Your task to perform on an android device: turn notification dots on Image 0: 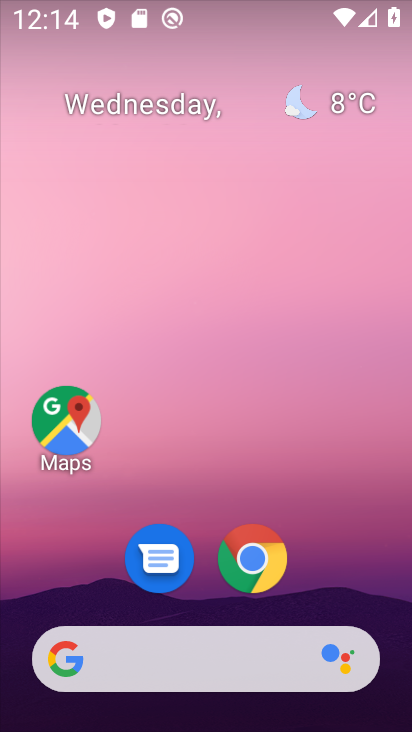
Step 0: drag from (320, 554) to (232, 28)
Your task to perform on an android device: turn notification dots on Image 1: 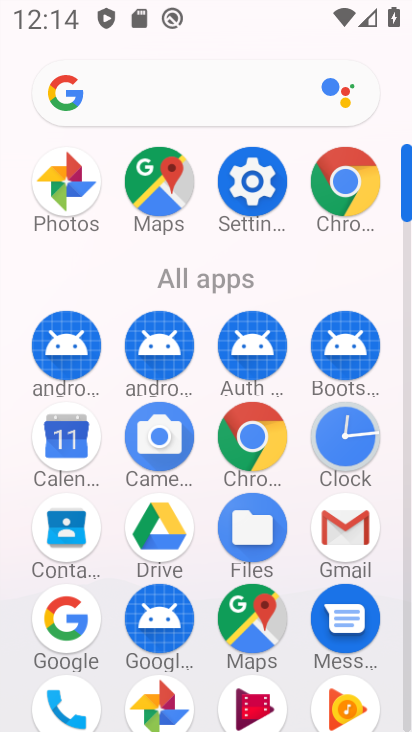
Step 1: drag from (24, 502) to (11, 184)
Your task to perform on an android device: turn notification dots on Image 2: 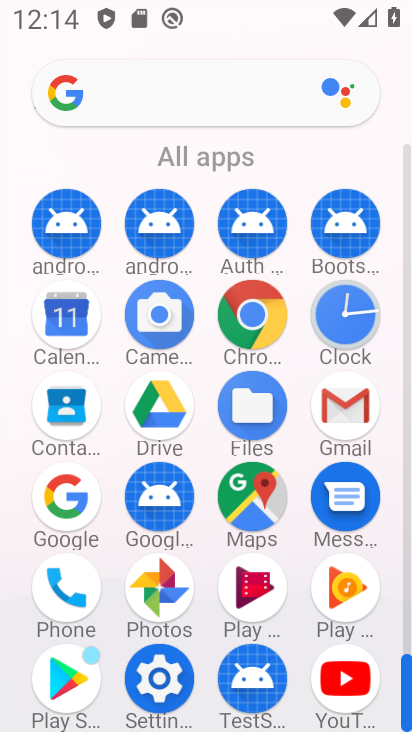
Step 2: click (155, 675)
Your task to perform on an android device: turn notification dots on Image 3: 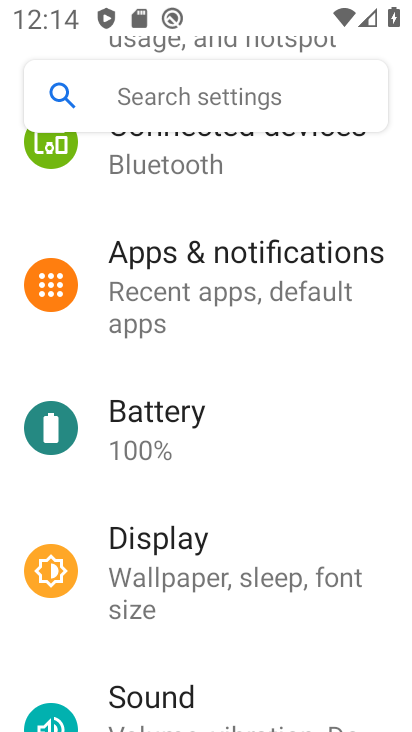
Step 3: drag from (320, 561) to (304, 146)
Your task to perform on an android device: turn notification dots on Image 4: 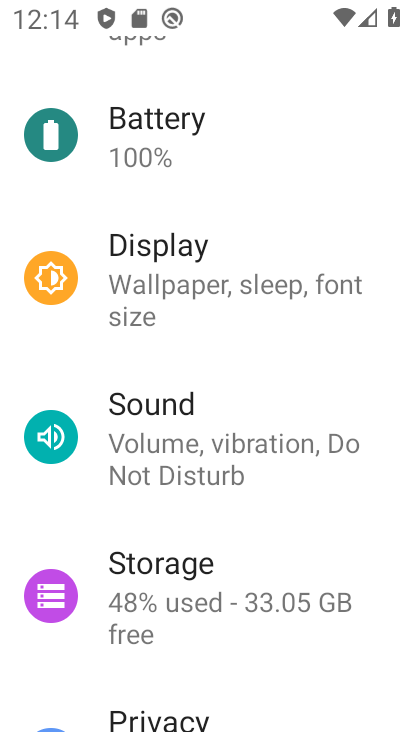
Step 4: drag from (281, 578) to (281, 139)
Your task to perform on an android device: turn notification dots on Image 5: 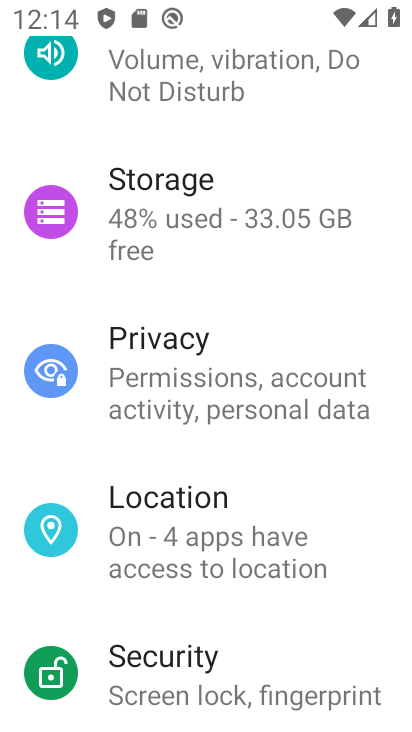
Step 5: drag from (275, 580) to (272, 153)
Your task to perform on an android device: turn notification dots on Image 6: 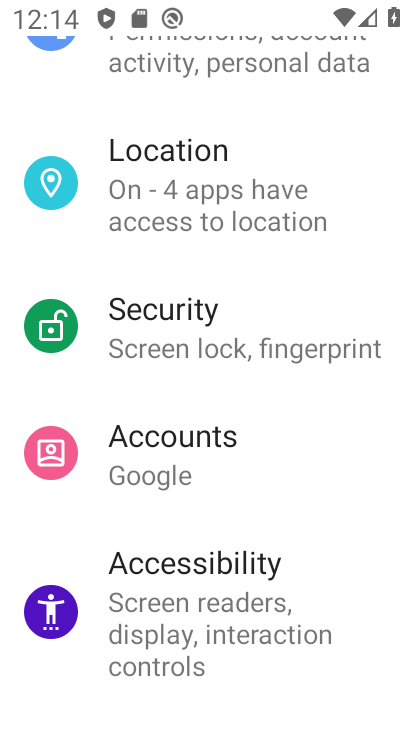
Step 6: drag from (274, 533) to (300, 142)
Your task to perform on an android device: turn notification dots on Image 7: 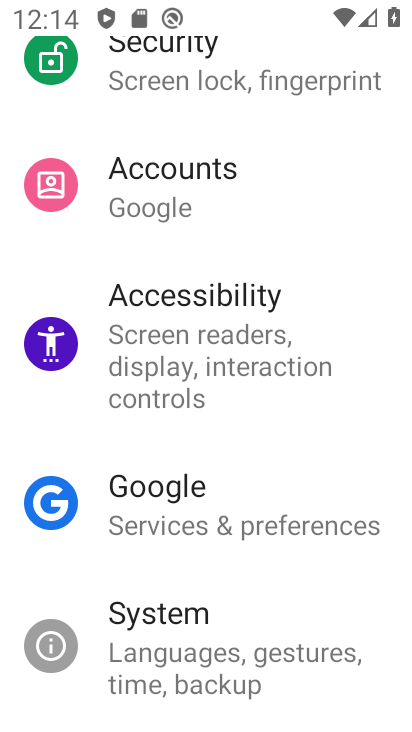
Step 7: drag from (318, 546) to (318, 122)
Your task to perform on an android device: turn notification dots on Image 8: 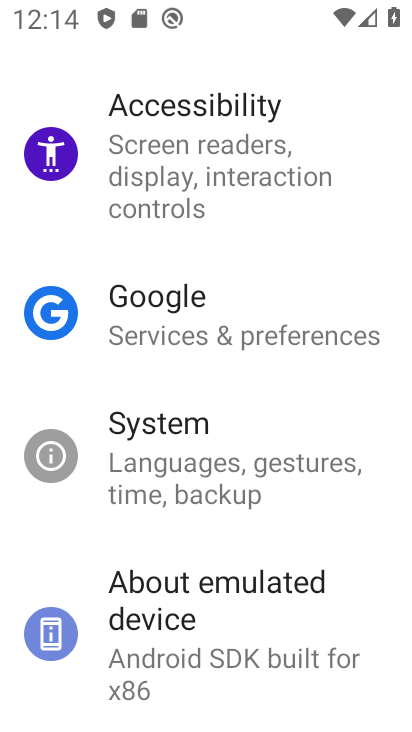
Step 8: drag from (313, 456) to (318, 232)
Your task to perform on an android device: turn notification dots on Image 9: 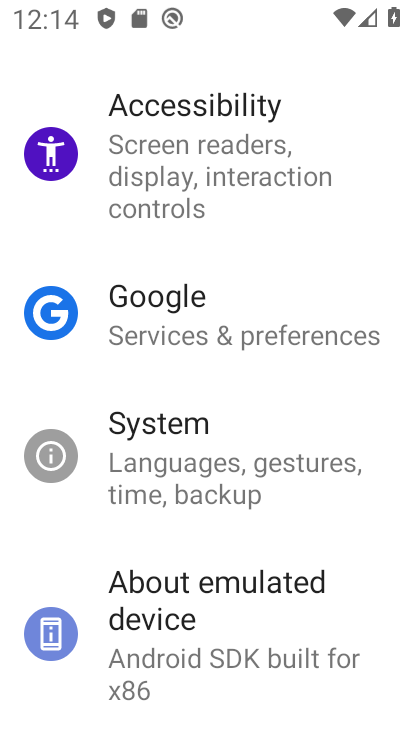
Step 9: drag from (296, 207) to (292, 591)
Your task to perform on an android device: turn notification dots on Image 10: 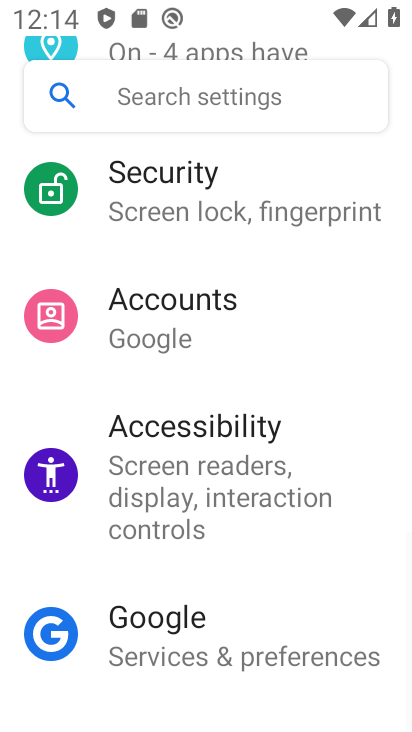
Step 10: drag from (273, 230) to (272, 631)
Your task to perform on an android device: turn notification dots on Image 11: 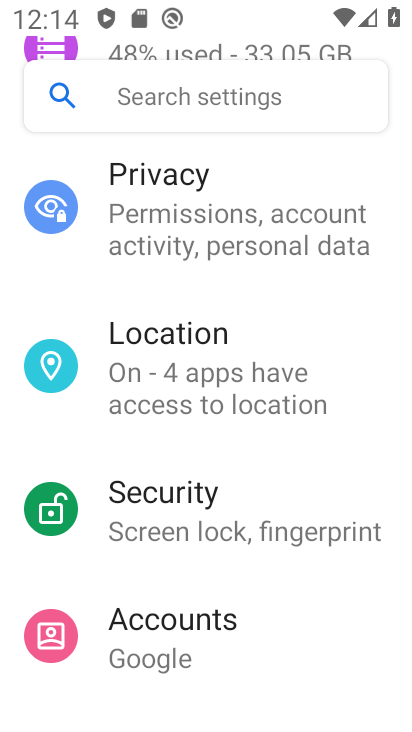
Step 11: drag from (272, 301) to (262, 693)
Your task to perform on an android device: turn notification dots on Image 12: 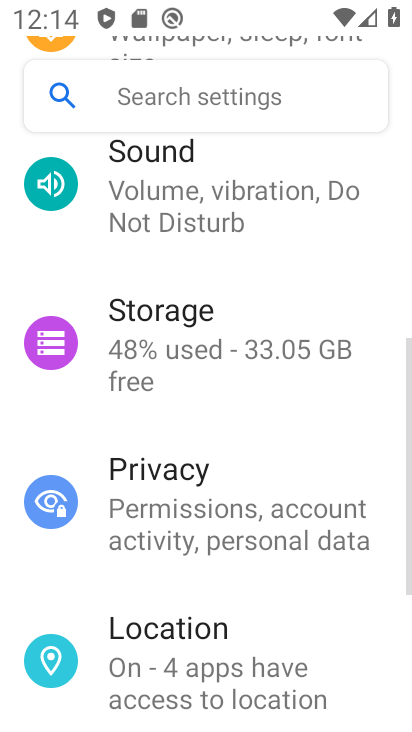
Step 12: drag from (305, 283) to (291, 650)
Your task to perform on an android device: turn notification dots on Image 13: 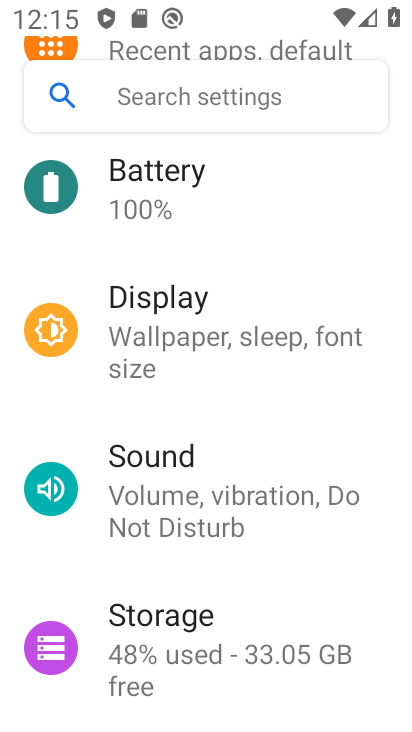
Step 13: drag from (263, 314) to (255, 638)
Your task to perform on an android device: turn notification dots on Image 14: 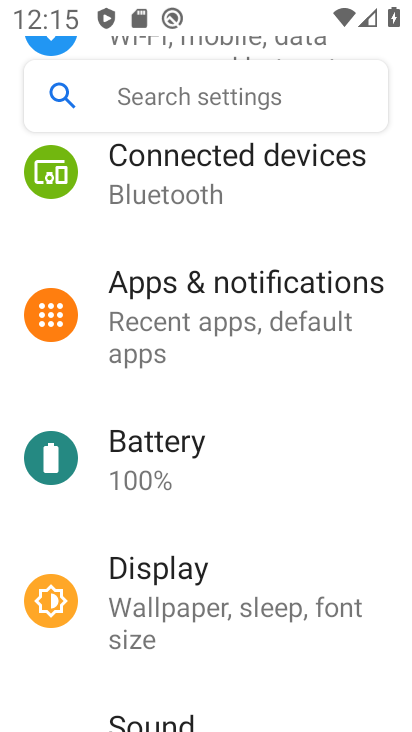
Step 14: click (271, 310)
Your task to perform on an android device: turn notification dots on Image 15: 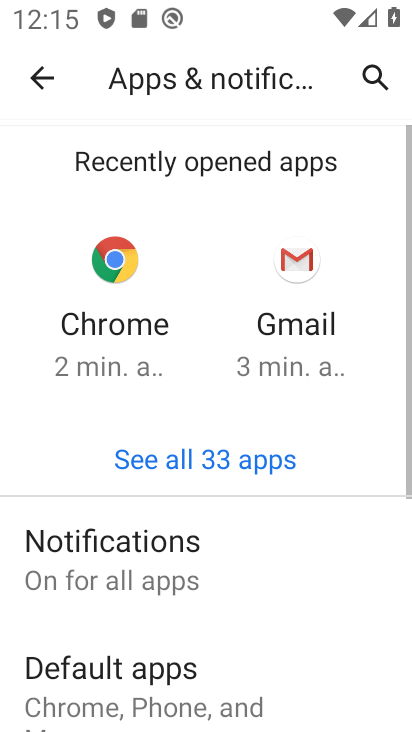
Step 15: drag from (261, 592) to (248, 170)
Your task to perform on an android device: turn notification dots on Image 16: 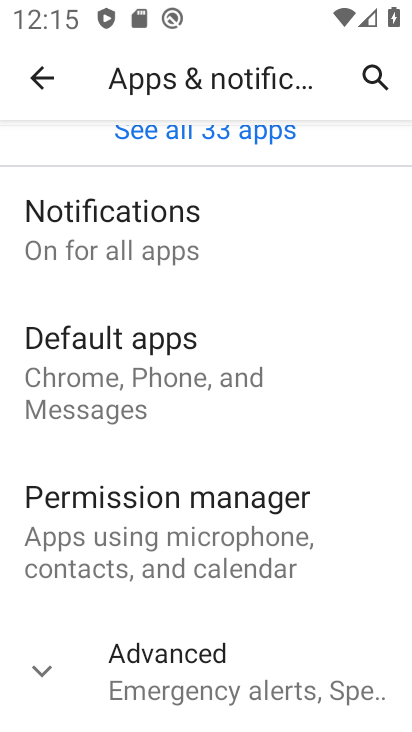
Step 16: click (201, 233)
Your task to perform on an android device: turn notification dots on Image 17: 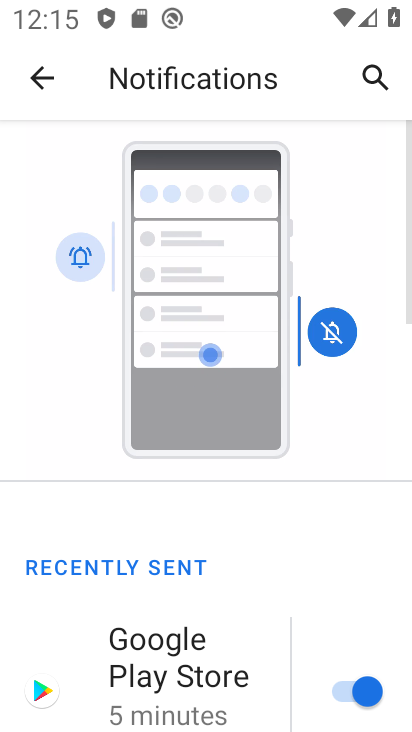
Step 17: drag from (221, 612) to (278, 112)
Your task to perform on an android device: turn notification dots on Image 18: 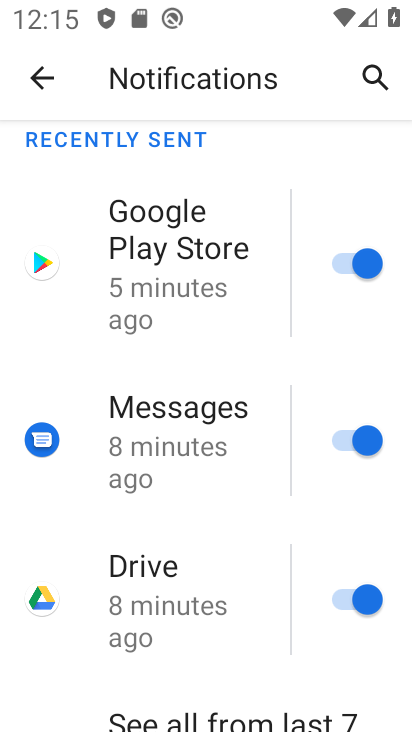
Step 18: drag from (223, 615) to (215, 152)
Your task to perform on an android device: turn notification dots on Image 19: 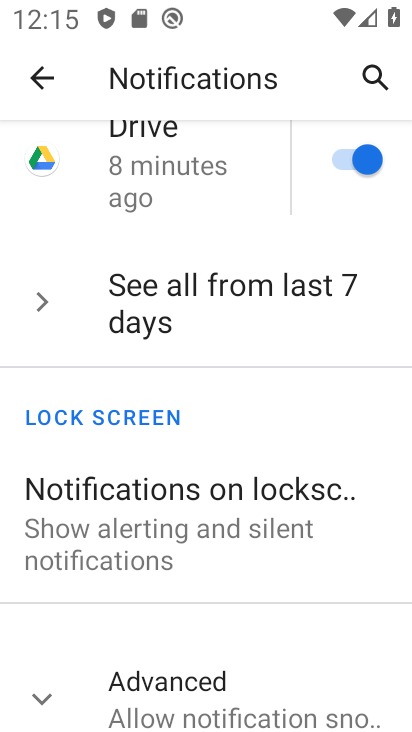
Step 19: drag from (206, 619) to (231, 149)
Your task to perform on an android device: turn notification dots on Image 20: 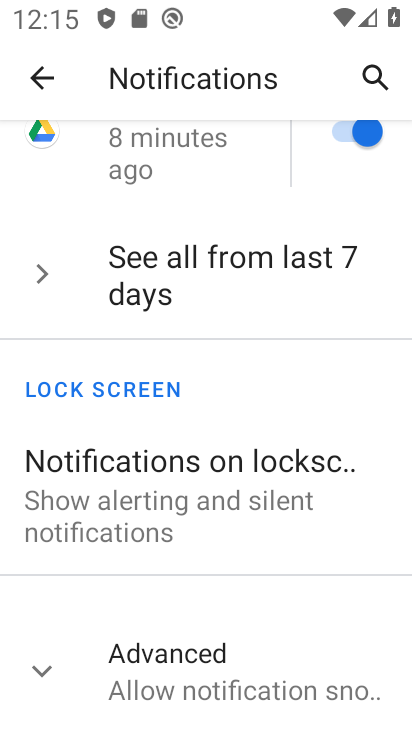
Step 20: click (61, 641)
Your task to perform on an android device: turn notification dots on Image 21: 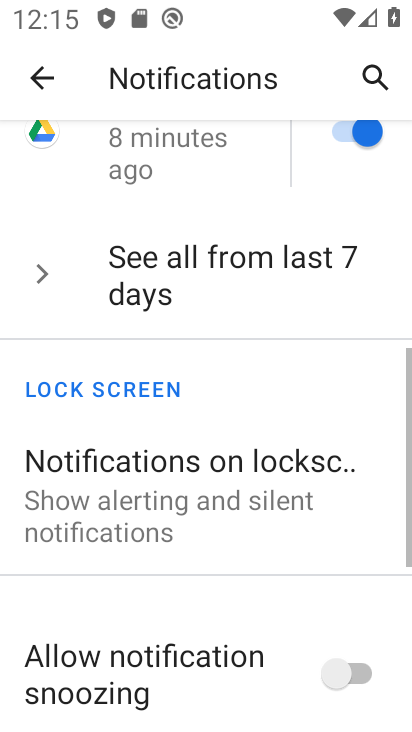
Step 21: task complete